Your task to perform on an android device: turn on priority inbox in the gmail app Image 0: 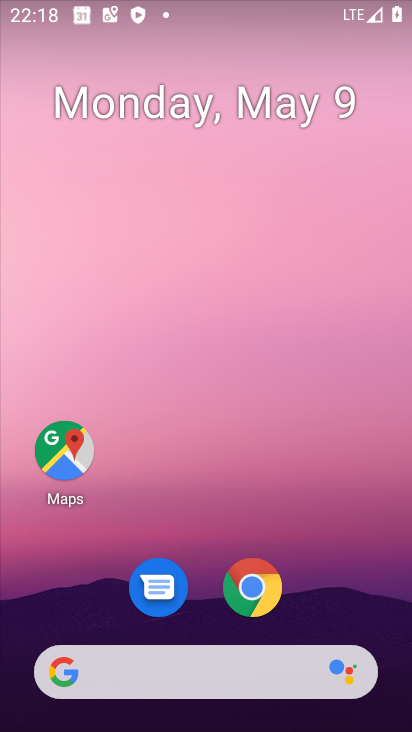
Step 0: drag from (203, 614) to (217, 247)
Your task to perform on an android device: turn on priority inbox in the gmail app Image 1: 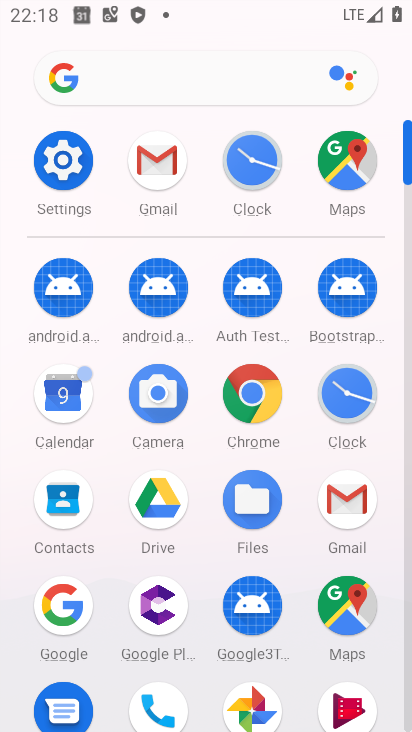
Step 1: click (159, 146)
Your task to perform on an android device: turn on priority inbox in the gmail app Image 2: 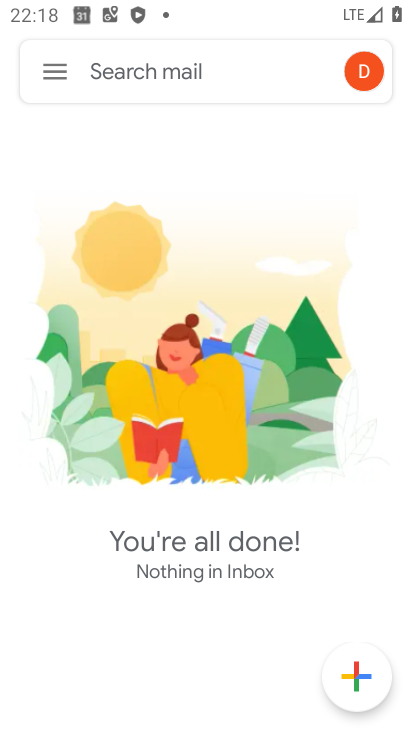
Step 2: click (59, 67)
Your task to perform on an android device: turn on priority inbox in the gmail app Image 3: 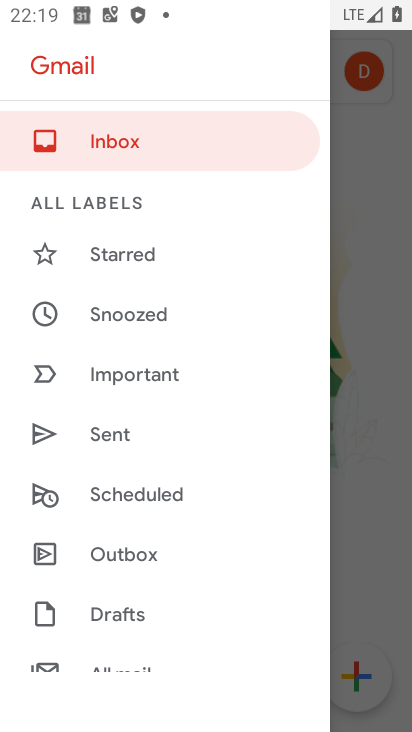
Step 3: drag from (111, 575) to (257, 74)
Your task to perform on an android device: turn on priority inbox in the gmail app Image 4: 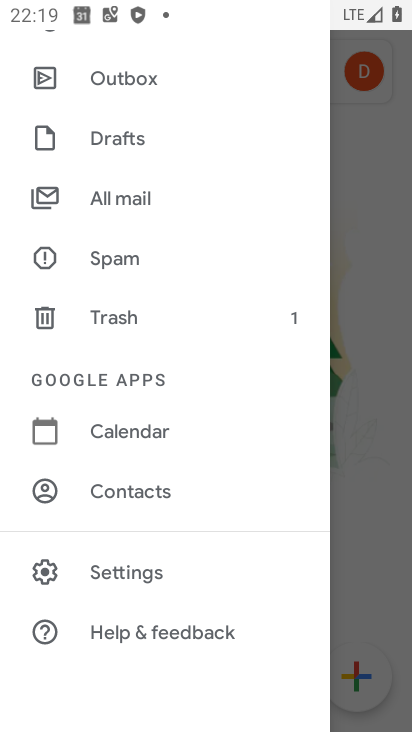
Step 4: click (202, 587)
Your task to perform on an android device: turn on priority inbox in the gmail app Image 5: 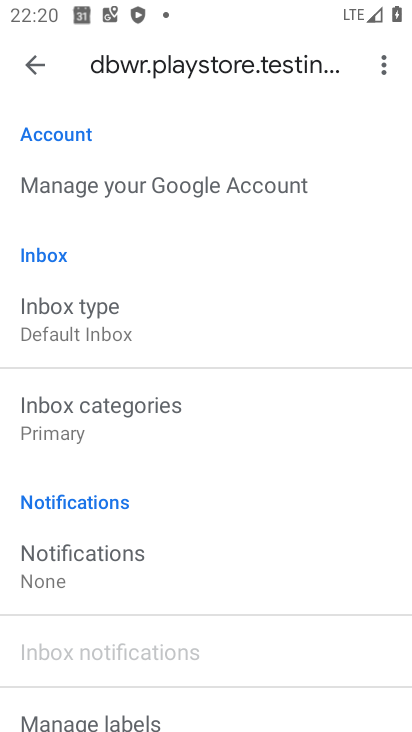
Step 5: click (214, 336)
Your task to perform on an android device: turn on priority inbox in the gmail app Image 6: 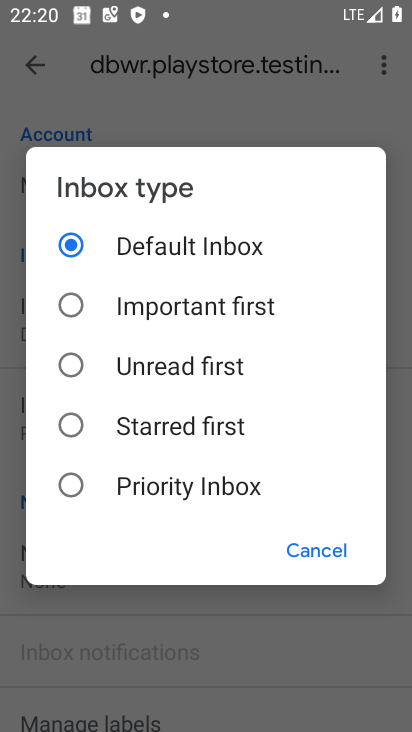
Step 6: click (148, 502)
Your task to perform on an android device: turn on priority inbox in the gmail app Image 7: 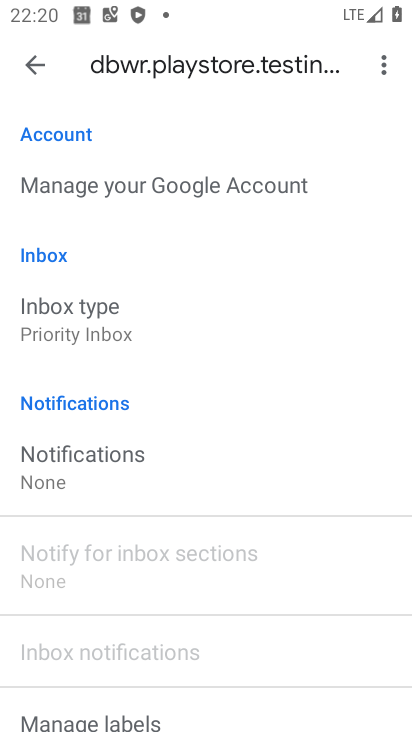
Step 7: task complete